Your task to perform on an android device: stop showing notifications on the lock screen Image 0: 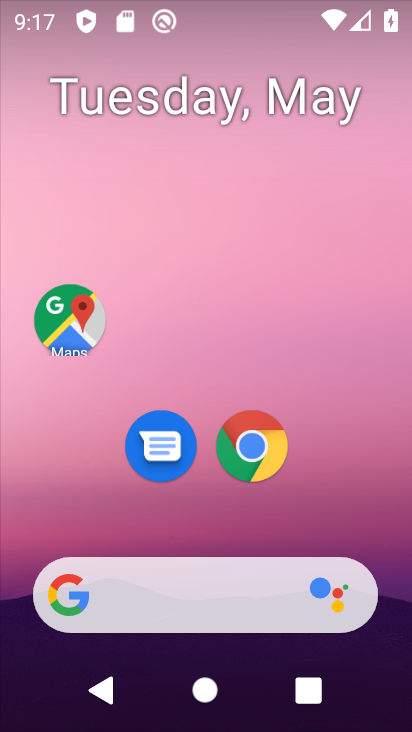
Step 0: drag from (175, 578) to (195, 28)
Your task to perform on an android device: stop showing notifications on the lock screen Image 1: 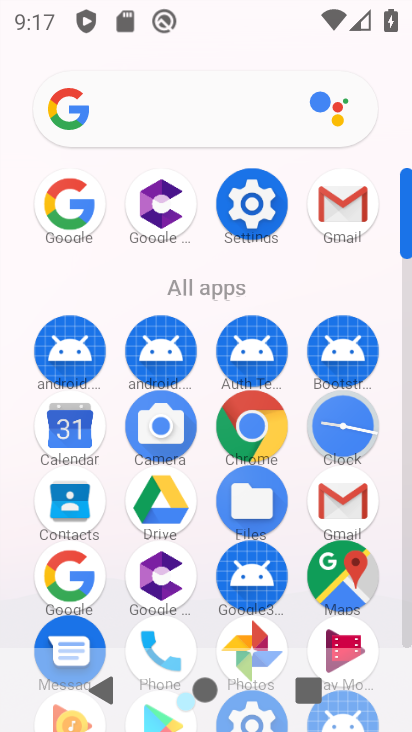
Step 1: click (257, 212)
Your task to perform on an android device: stop showing notifications on the lock screen Image 2: 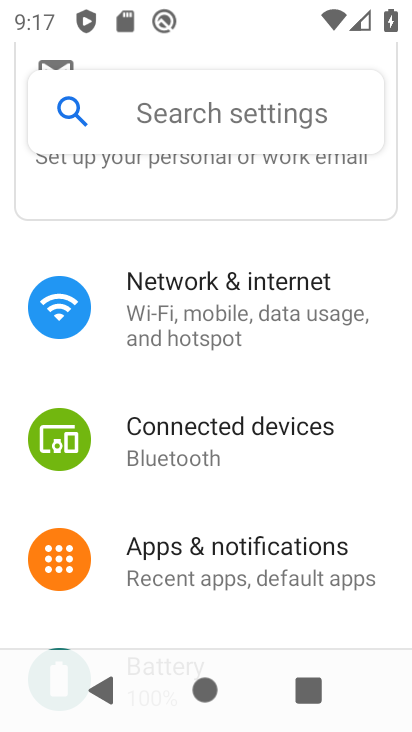
Step 2: click (204, 557)
Your task to perform on an android device: stop showing notifications on the lock screen Image 3: 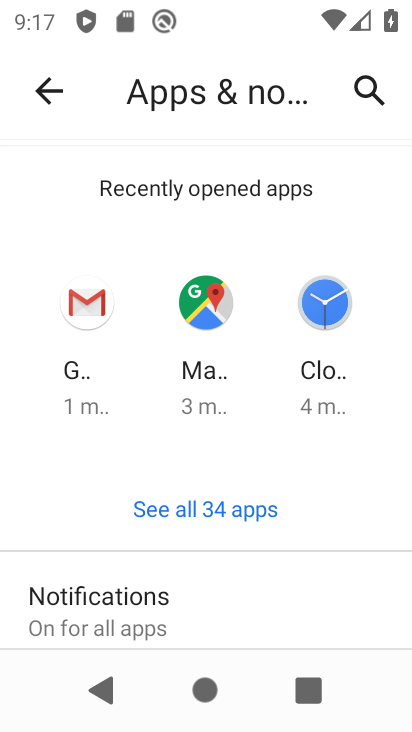
Step 3: click (182, 590)
Your task to perform on an android device: stop showing notifications on the lock screen Image 4: 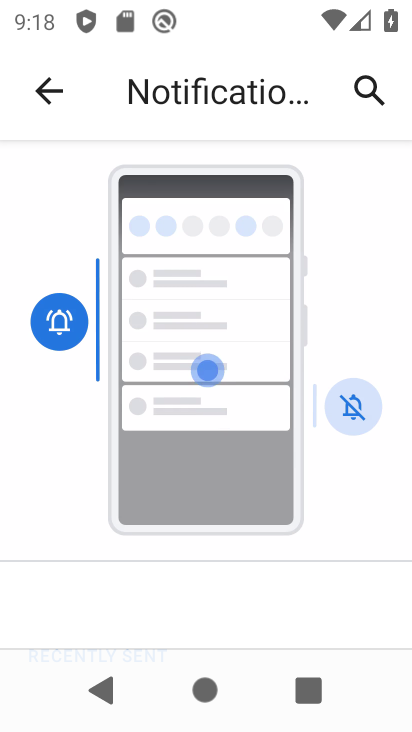
Step 4: drag from (207, 576) to (164, 143)
Your task to perform on an android device: stop showing notifications on the lock screen Image 5: 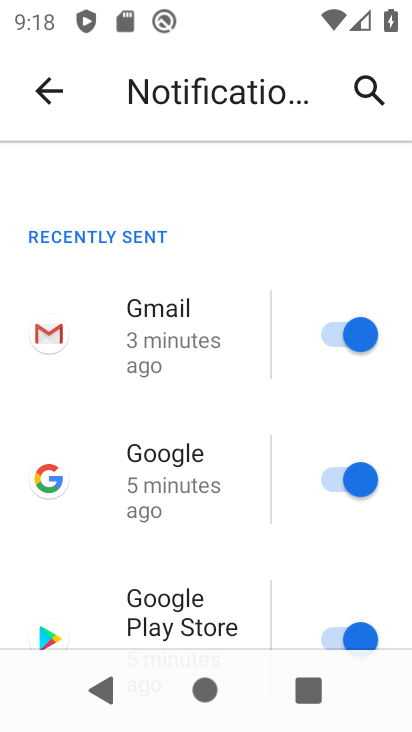
Step 5: drag from (218, 523) to (186, 66)
Your task to perform on an android device: stop showing notifications on the lock screen Image 6: 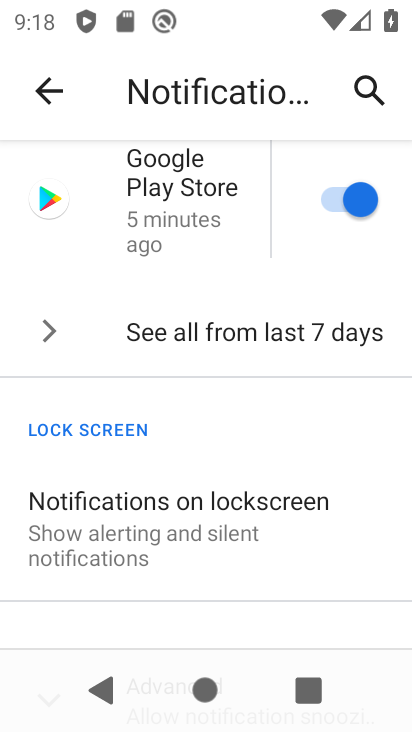
Step 6: click (168, 523)
Your task to perform on an android device: stop showing notifications on the lock screen Image 7: 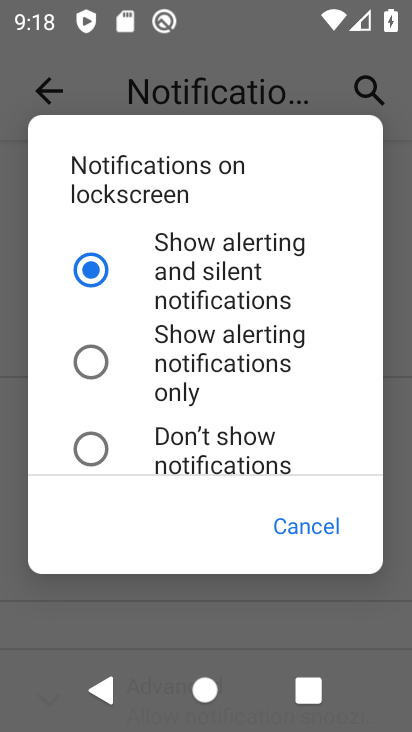
Step 7: click (102, 440)
Your task to perform on an android device: stop showing notifications on the lock screen Image 8: 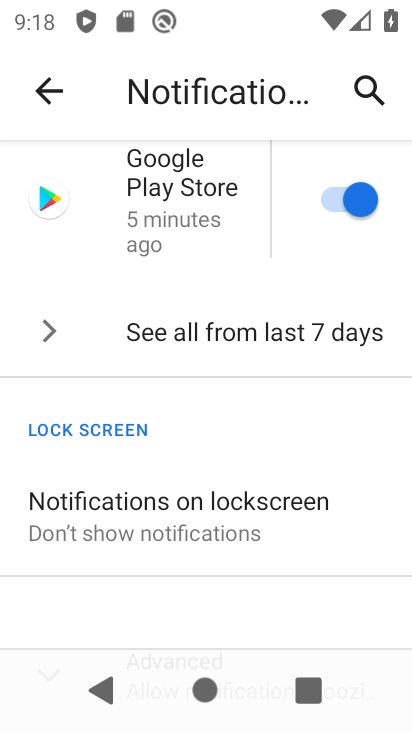
Step 8: task complete